Your task to perform on an android device: turn notification dots on Image 0: 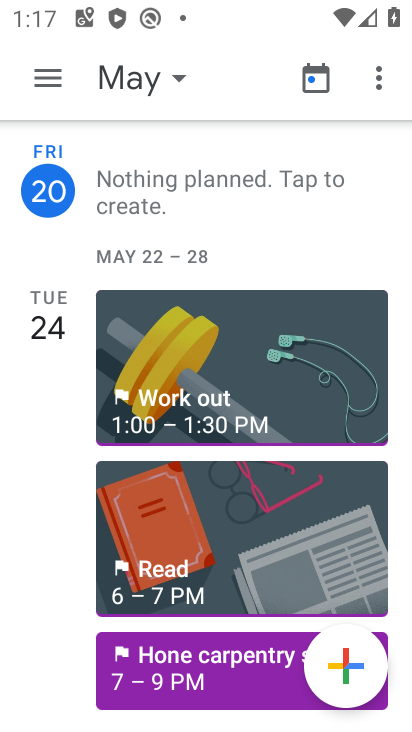
Step 0: press home button
Your task to perform on an android device: turn notification dots on Image 1: 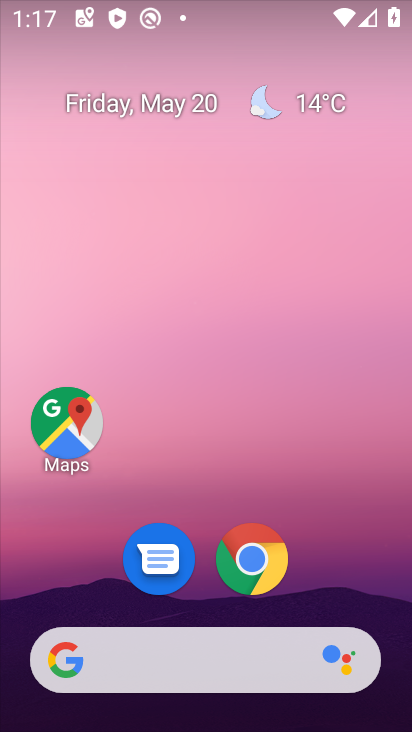
Step 1: drag from (359, 520) to (401, 248)
Your task to perform on an android device: turn notification dots on Image 2: 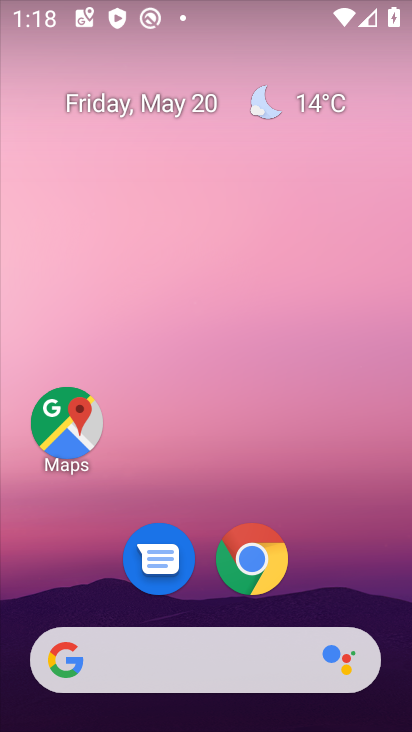
Step 2: drag from (365, 615) to (347, 43)
Your task to perform on an android device: turn notification dots on Image 3: 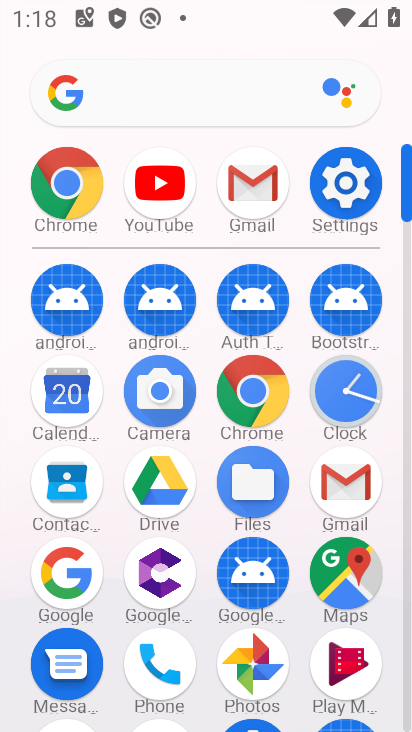
Step 3: click (346, 174)
Your task to perform on an android device: turn notification dots on Image 4: 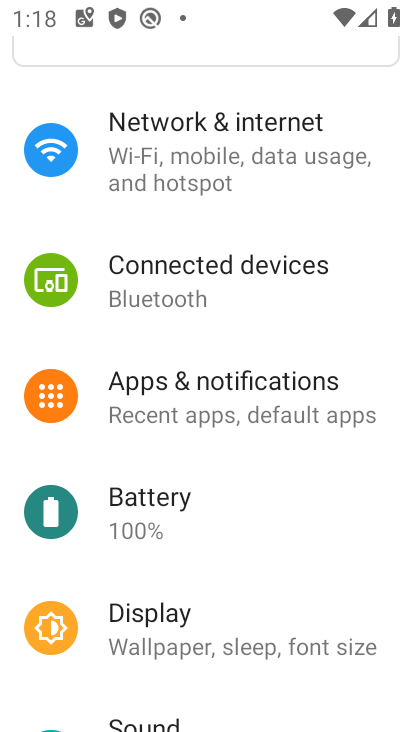
Step 4: drag from (234, 556) to (213, 419)
Your task to perform on an android device: turn notification dots on Image 5: 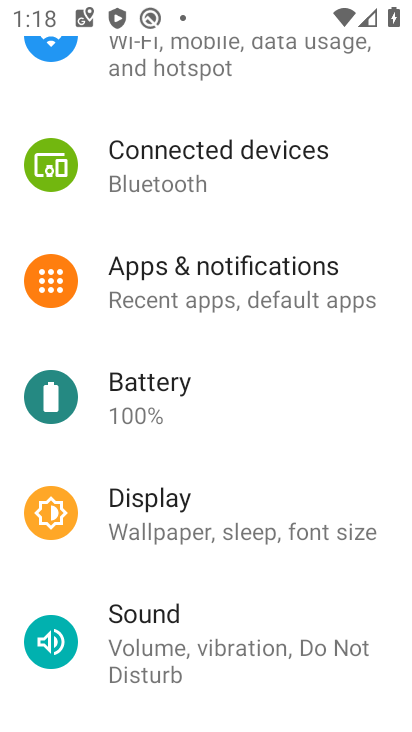
Step 5: click (167, 278)
Your task to perform on an android device: turn notification dots on Image 6: 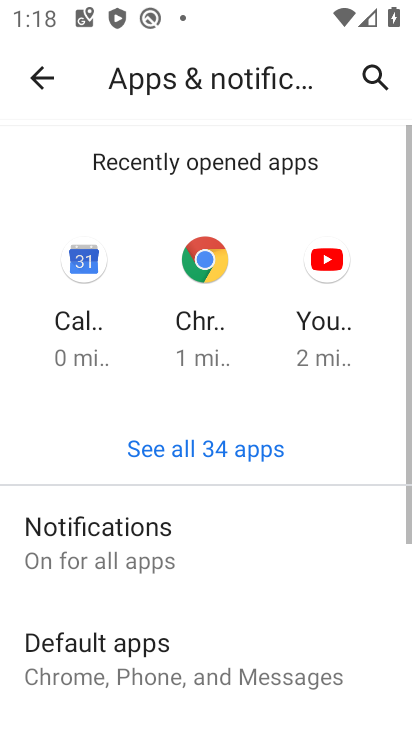
Step 6: drag from (178, 606) to (213, 184)
Your task to perform on an android device: turn notification dots on Image 7: 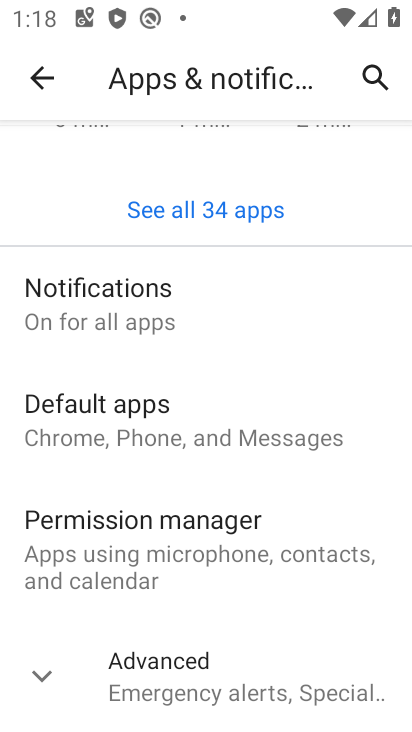
Step 7: drag from (227, 540) to (217, 235)
Your task to perform on an android device: turn notification dots on Image 8: 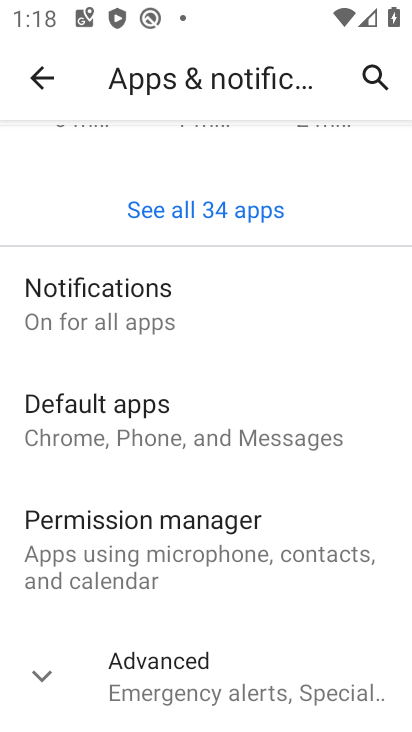
Step 8: click (178, 663)
Your task to perform on an android device: turn notification dots on Image 9: 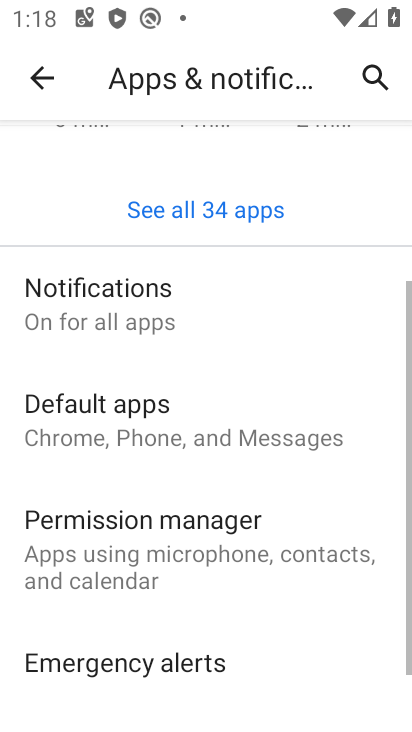
Step 9: drag from (178, 663) to (176, 503)
Your task to perform on an android device: turn notification dots on Image 10: 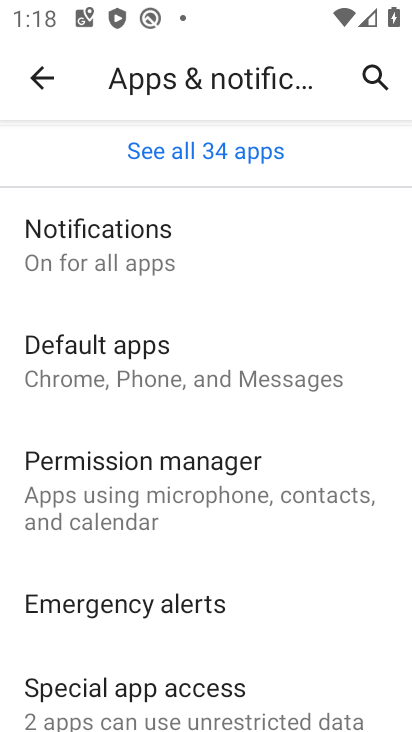
Step 10: click (144, 275)
Your task to perform on an android device: turn notification dots on Image 11: 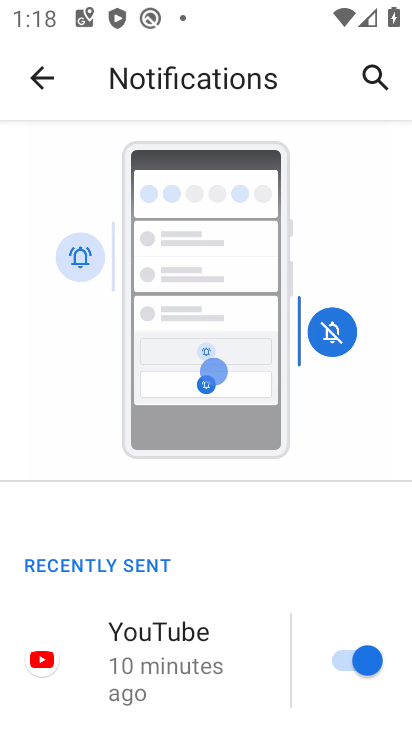
Step 11: drag from (180, 587) to (200, 262)
Your task to perform on an android device: turn notification dots on Image 12: 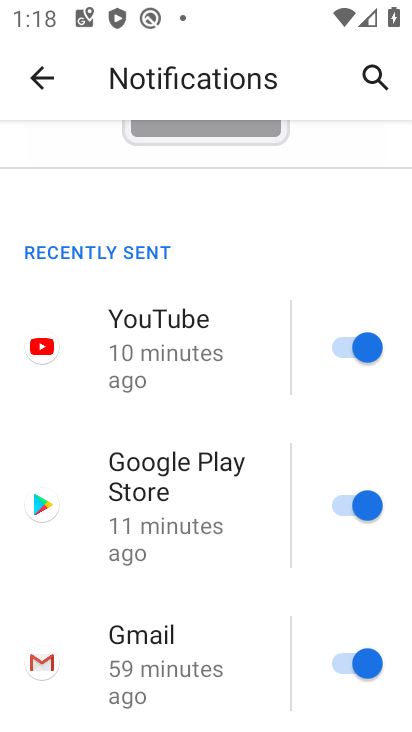
Step 12: drag from (176, 646) to (170, 254)
Your task to perform on an android device: turn notification dots on Image 13: 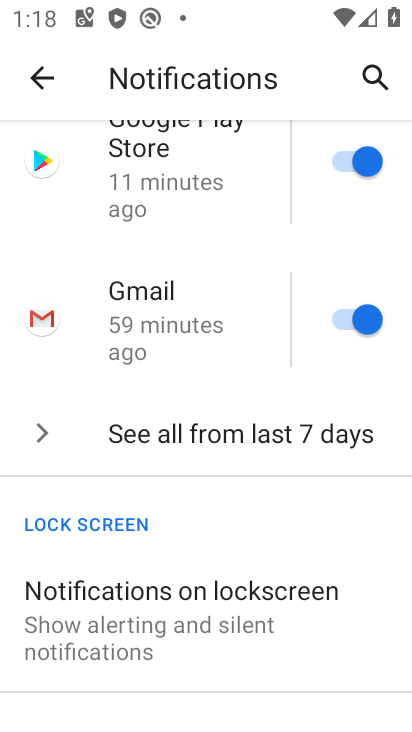
Step 13: drag from (157, 592) to (147, 364)
Your task to perform on an android device: turn notification dots on Image 14: 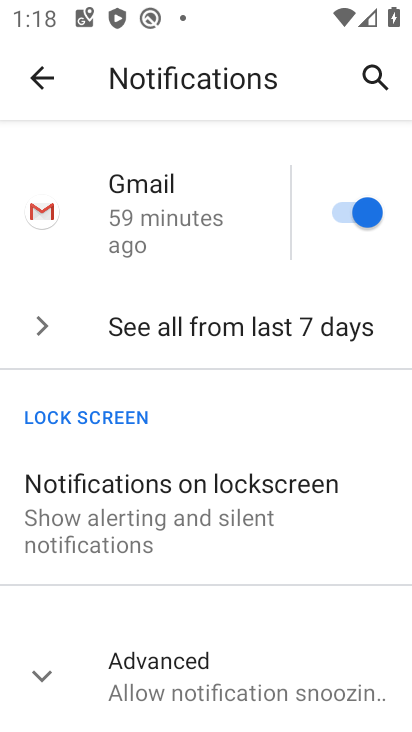
Step 14: click (165, 676)
Your task to perform on an android device: turn notification dots on Image 15: 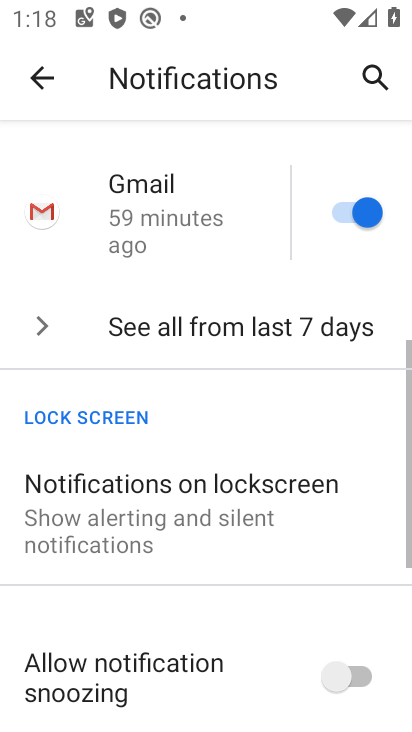
Step 15: drag from (186, 528) to (188, 103)
Your task to perform on an android device: turn notification dots on Image 16: 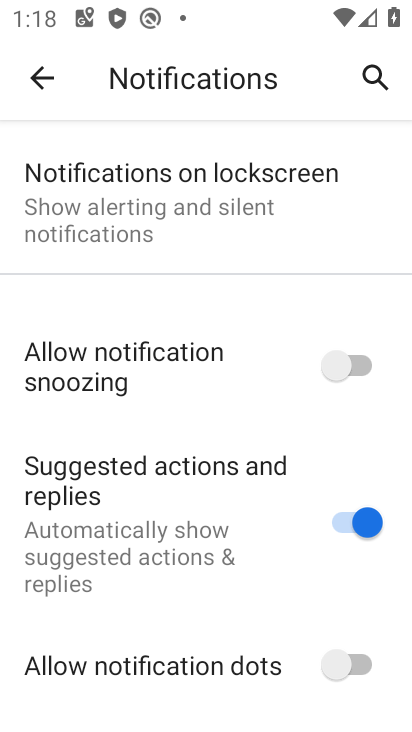
Step 16: click (233, 623)
Your task to perform on an android device: turn notification dots on Image 17: 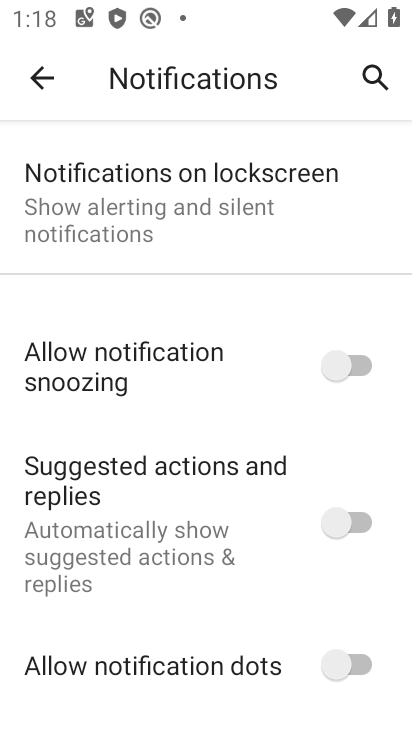
Step 17: click (357, 644)
Your task to perform on an android device: turn notification dots on Image 18: 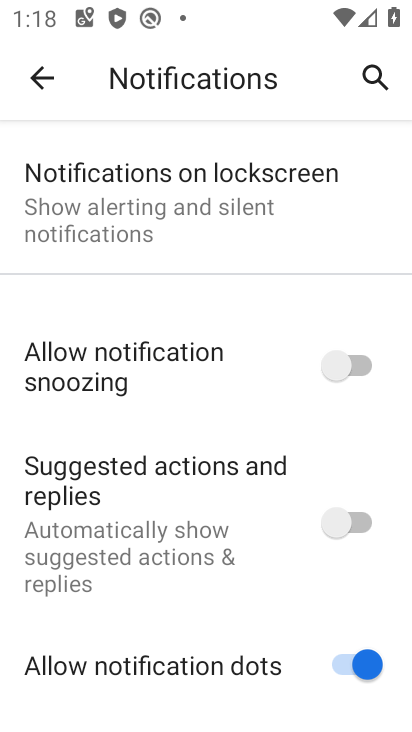
Step 18: task complete